Your task to perform on an android device: Toggle the flashlight Image 0: 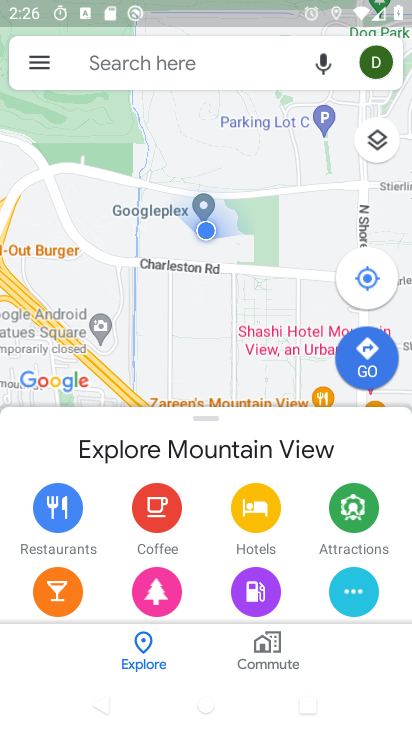
Step 0: press home button
Your task to perform on an android device: Toggle the flashlight Image 1: 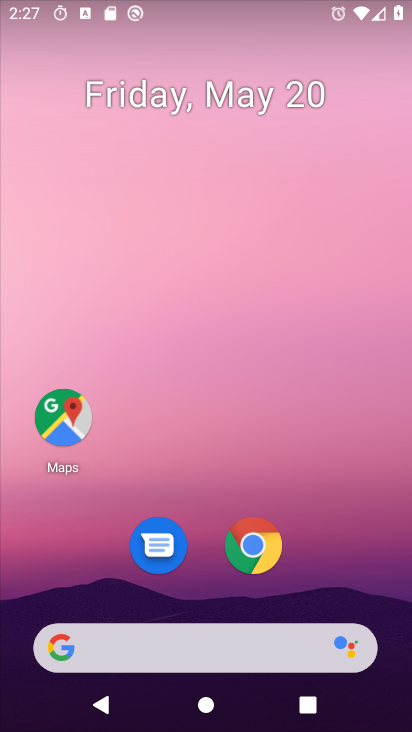
Step 1: drag from (198, 649) to (238, 4)
Your task to perform on an android device: Toggle the flashlight Image 2: 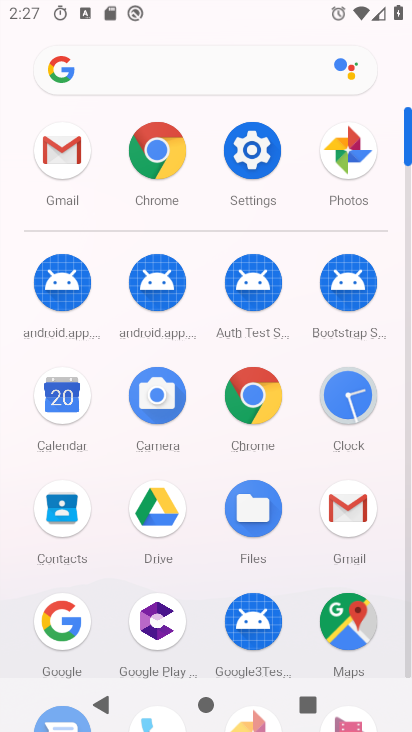
Step 2: click (252, 166)
Your task to perform on an android device: Toggle the flashlight Image 3: 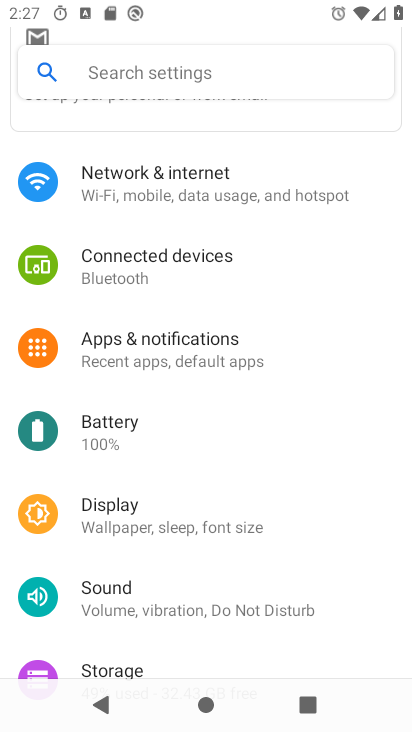
Step 3: task complete